Your task to perform on an android device: Look up the best rated headphones on Aliexpress Image 0: 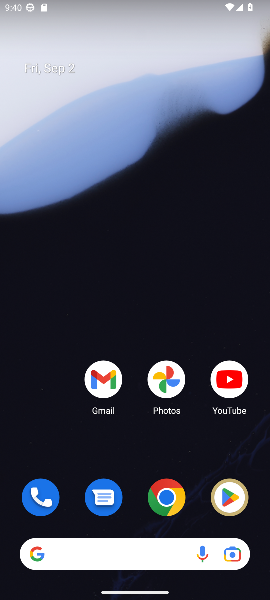
Step 0: drag from (134, 515) to (129, 108)
Your task to perform on an android device: Look up the best rated headphones on Aliexpress Image 1: 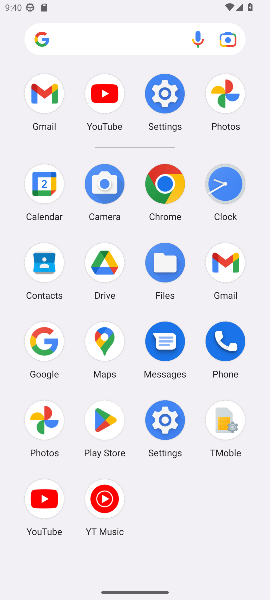
Step 1: click (54, 343)
Your task to perform on an android device: Look up the best rated headphones on Aliexpress Image 2: 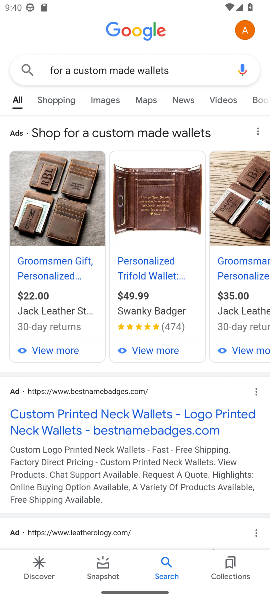
Step 2: click (199, 73)
Your task to perform on an android device: Look up the best rated headphones on Aliexpress Image 3: 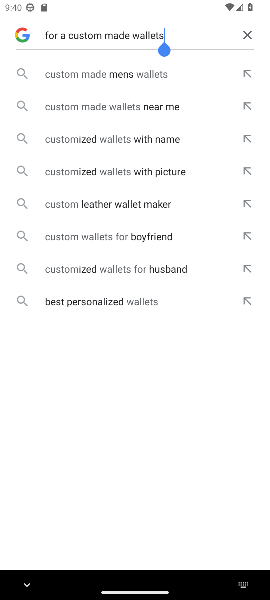
Step 3: click (248, 38)
Your task to perform on an android device: Look up the best rated headphones on Aliexpress Image 4: 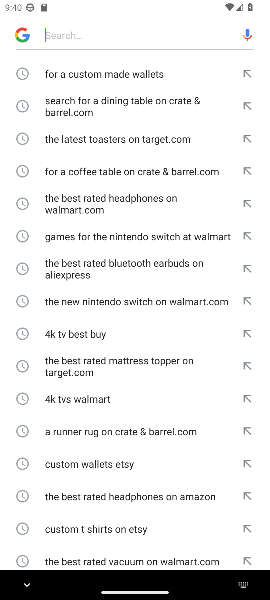
Step 4: type " the best rated headphones on Aliexpress"
Your task to perform on an android device: Look up the best rated headphones on Aliexpress Image 5: 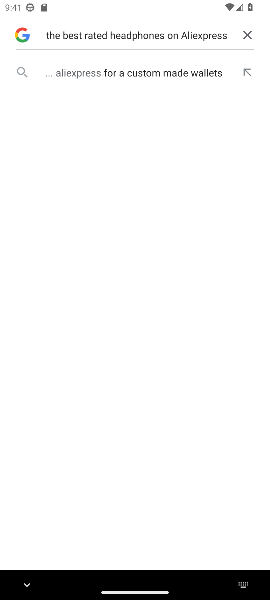
Step 5: click (177, 69)
Your task to perform on an android device: Look up the best rated headphones on Aliexpress Image 6: 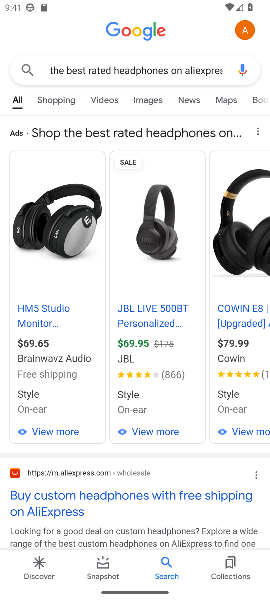
Step 6: task complete